Your task to perform on an android device: change notifications settings Image 0: 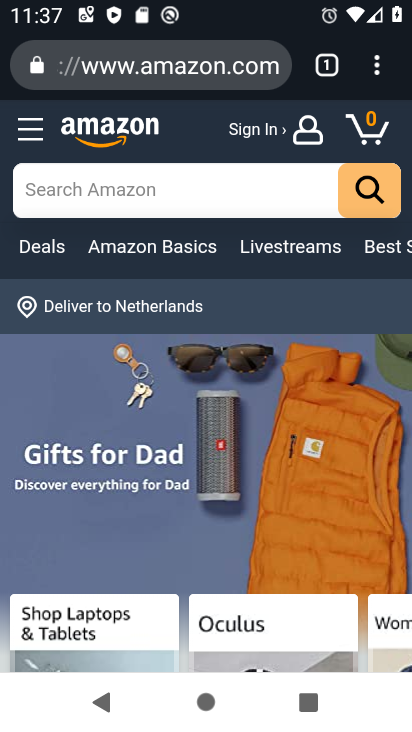
Step 0: press home button
Your task to perform on an android device: change notifications settings Image 1: 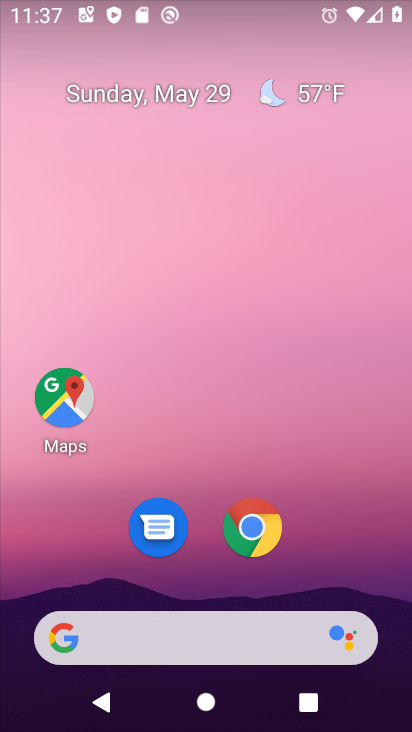
Step 1: drag from (217, 606) to (210, 103)
Your task to perform on an android device: change notifications settings Image 2: 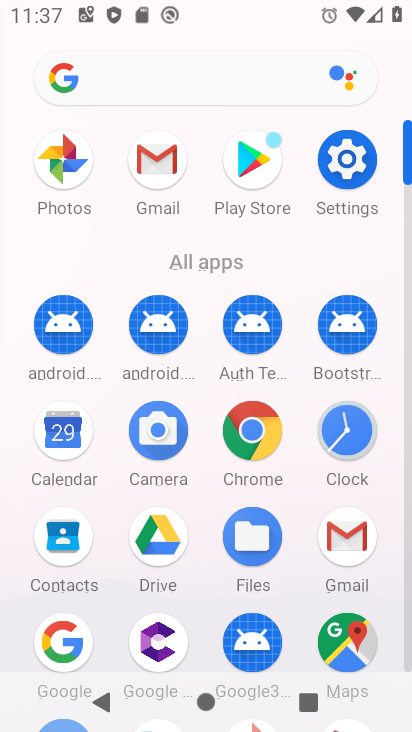
Step 2: click (344, 153)
Your task to perform on an android device: change notifications settings Image 3: 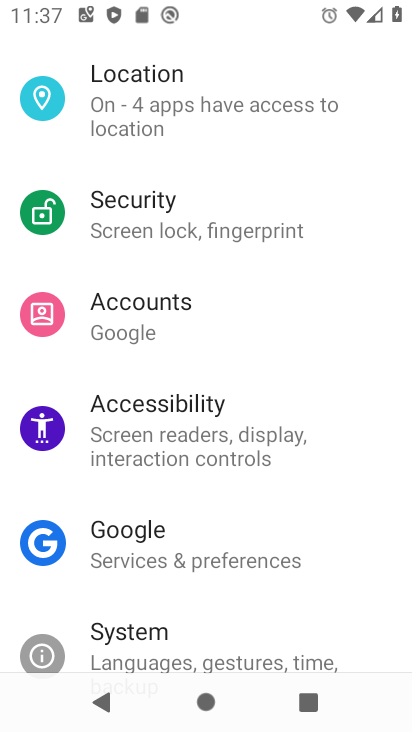
Step 3: drag from (150, 162) to (51, 719)
Your task to perform on an android device: change notifications settings Image 4: 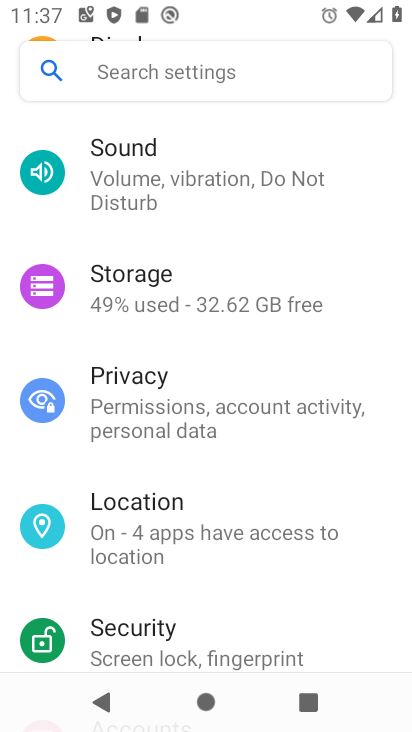
Step 4: drag from (152, 325) to (182, 603)
Your task to perform on an android device: change notifications settings Image 5: 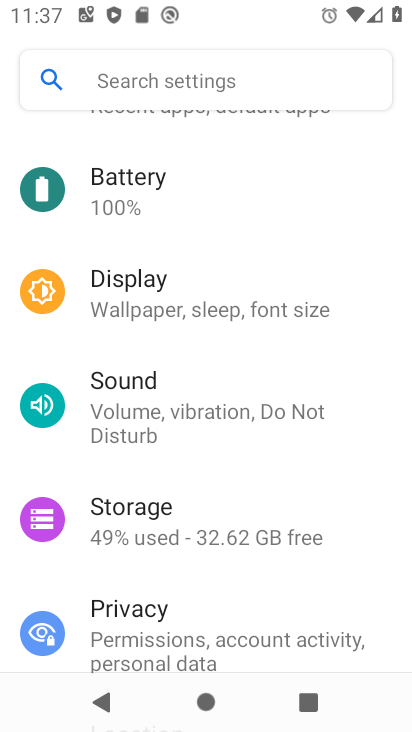
Step 5: drag from (142, 165) to (182, 549)
Your task to perform on an android device: change notifications settings Image 6: 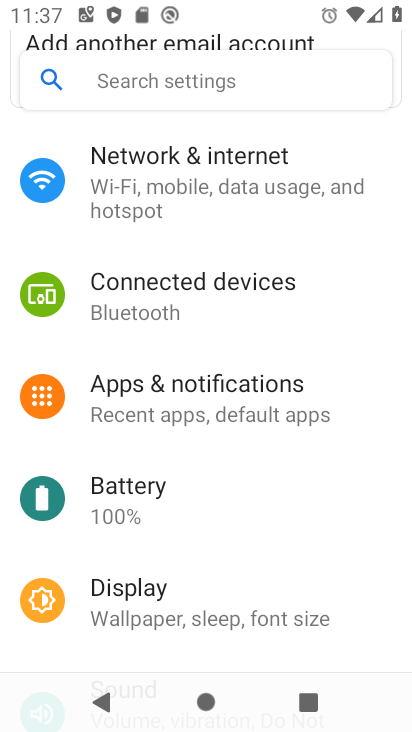
Step 6: click (102, 415)
Your task to perform on an android device: change notifications settings Image 7: 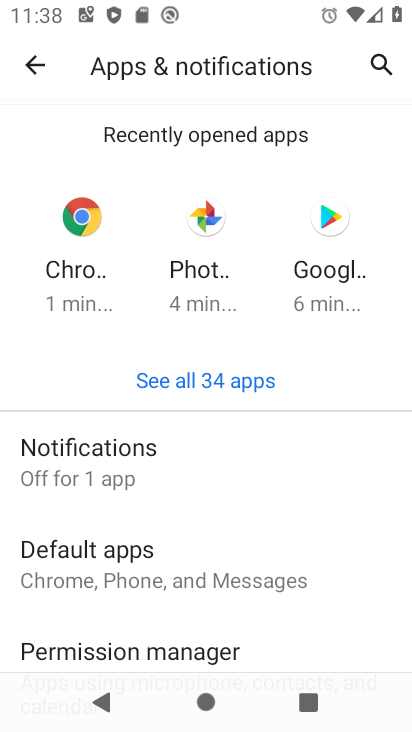
Step 7: click (126, 480)
Your task to perform on an android device: change notifications settings Image 8: 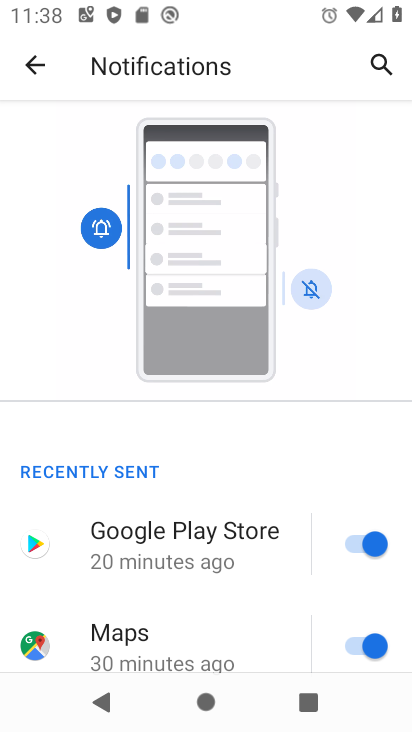
Step 8: drag from (126, 480) to (250, 11)
Your task to perform on an android device: change notifications settings Image 9: 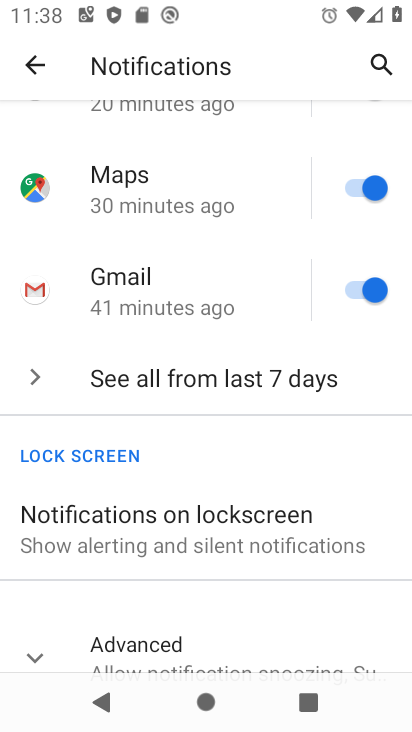
Step 9: click (208, 530)
Your task to perform on an android device: change notifications settings Image 10: 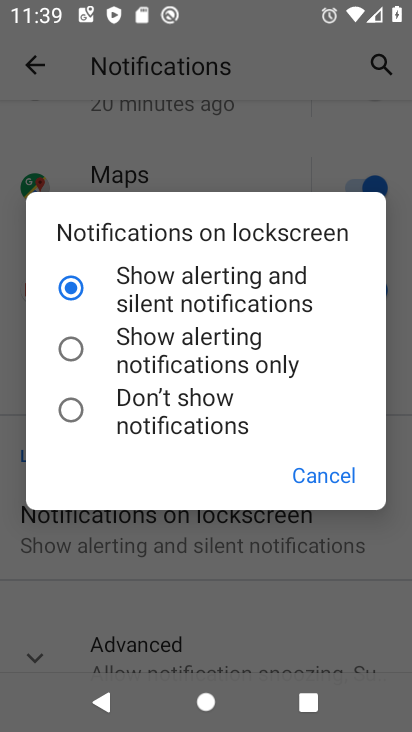
Step 10: click (191, 366)
Your task to perform on an android device: change notifications settings Image 11: 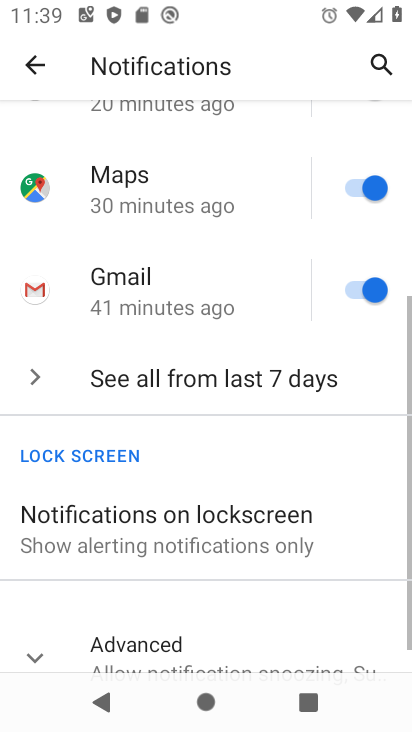
Step 11: task complete